Your task to perform on an android device: Open Amazon Image 0: 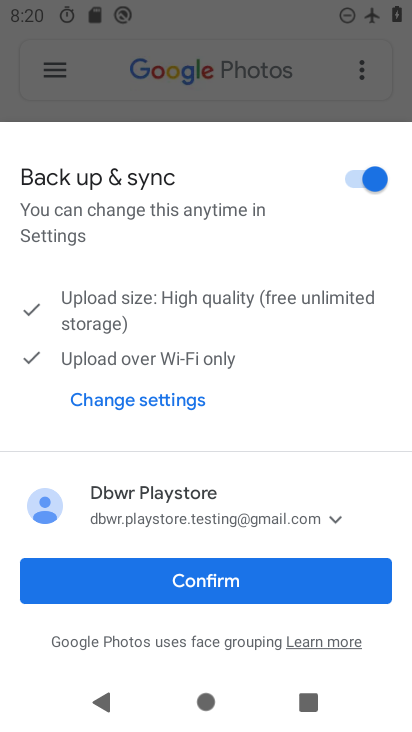
Step 0: press home button
Your task to perform on an android device: Open Amazon Image 1: 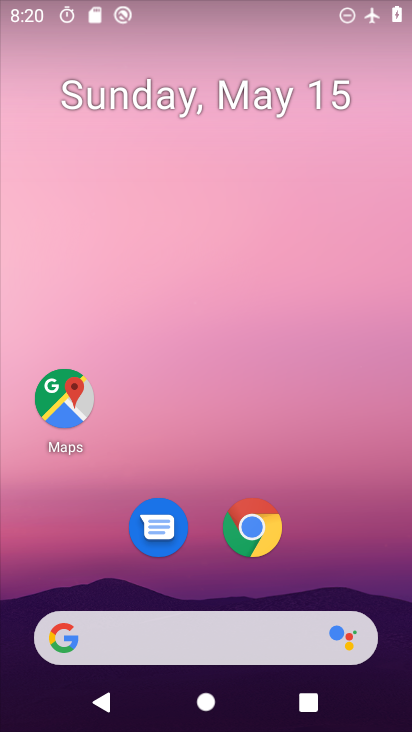
Step 1: click (257, 543)
Your task to perform on an android device: Open Amazon Image 2: 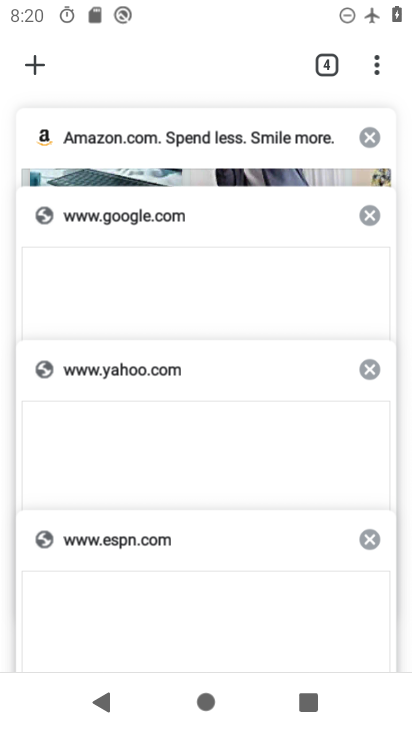
Step 2: click (230, 144)
Your task to perform on an android device: Open Amazon Image 3: 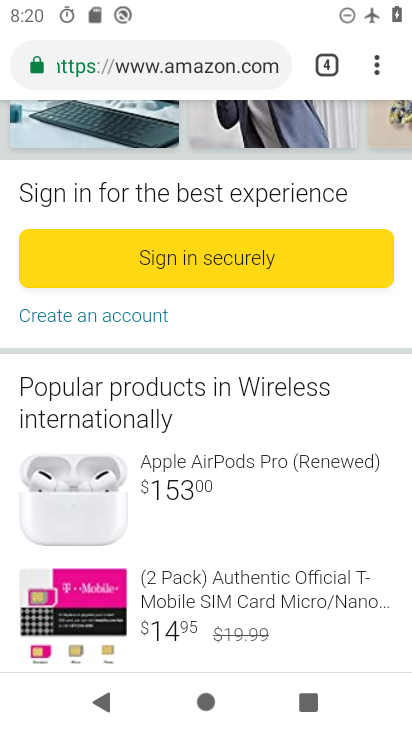
Step 3: task complete